Your task to perform on an android device: Do I have any events this weekend? Image 0: 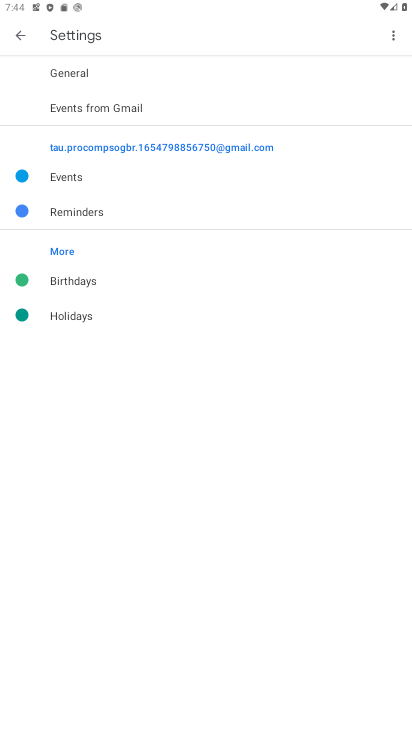
Step 0: press home button
Your task to perform on an android device: Do I have any events this weekend? Image 1: 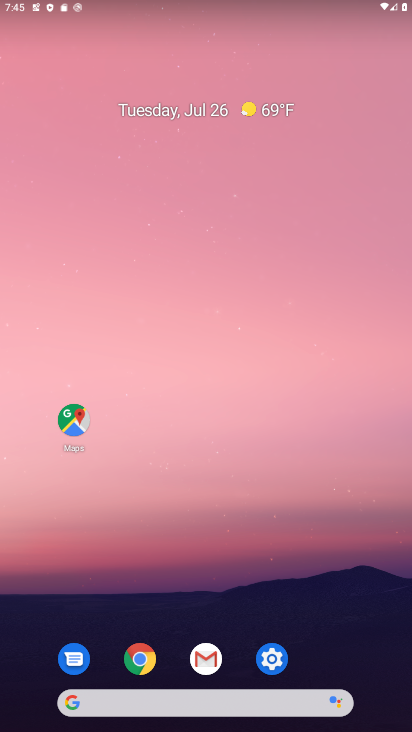
Step 1: drag from (220, 719) to (315, 249)
Your task to perform on an android device: Do I have any events this weekend? Image 2: 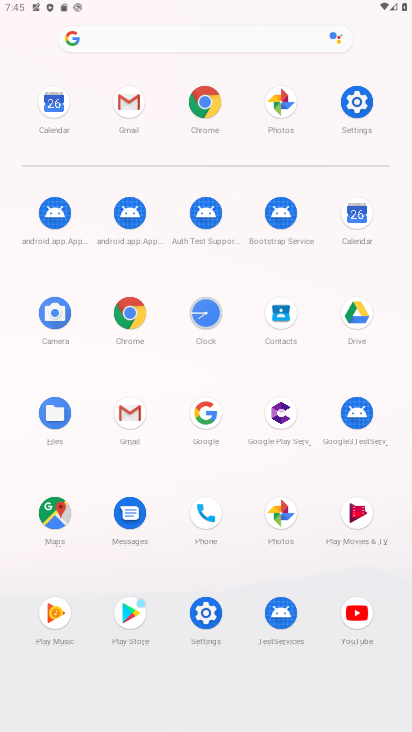
Step 2: click (345, 229)
Your task to perform on an android device: Do I have any events this weekend? Image 3: 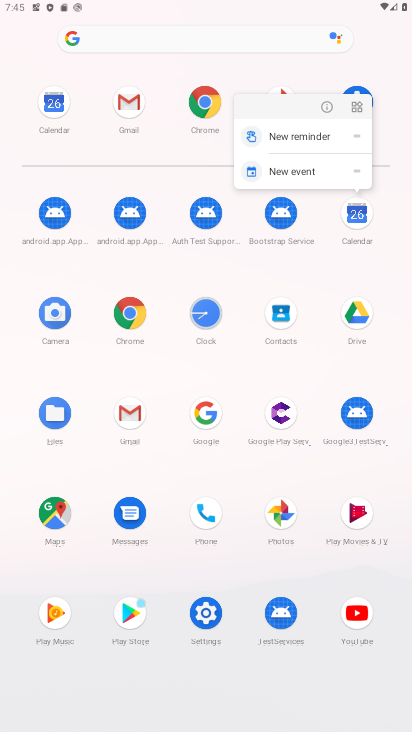
Step 3: click (358, 216)
Your task to perform on an android device: Do I have any events this weekend? Image 4: 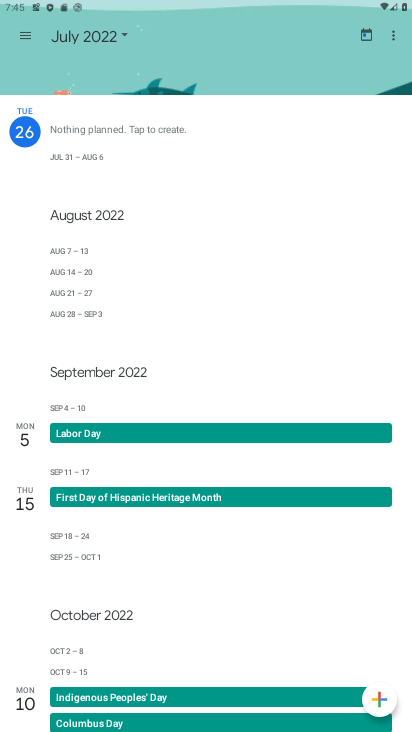
Step 4: click (27, 32)
Your task to perform on an android device: Do I have any events this weekend? Image 5: 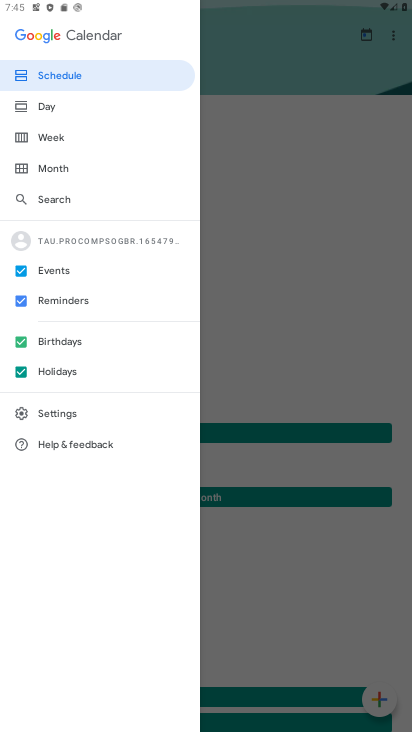
Step 5: click (59, 174)
Your task to perform on an android device: Do I have any events this weekend? Image 6: 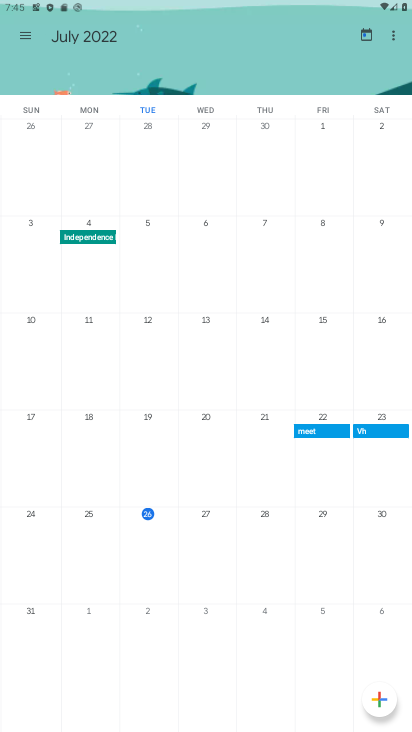
Step 6: click (149, 516)
Your task to perform on an android device: Do I have any events this weekend? Image 7: 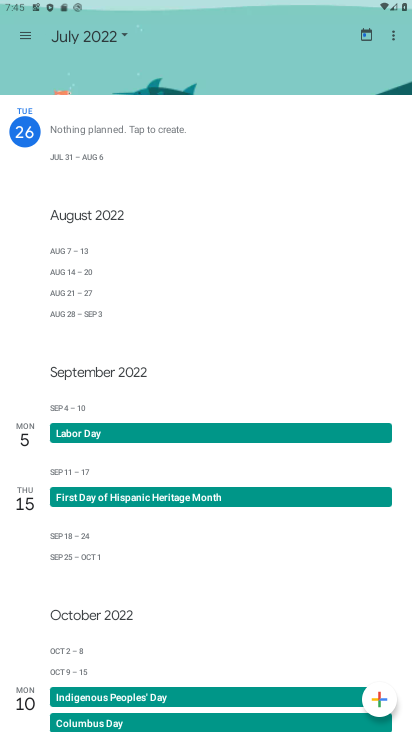
Step 7: task complete